Your task to perform on an android device: Empty the shopping cart on bestbuy.com. Image 0: 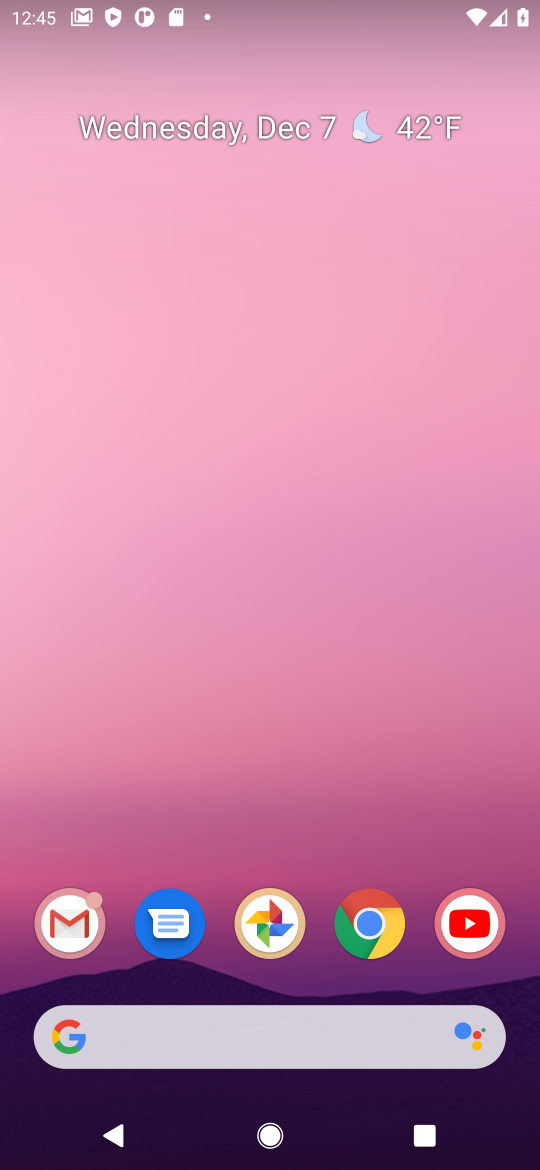
Step 0: click (369, 904)
Your task to perform on an android device: Empty the shopping cart on bestbuy.com. Image 1: 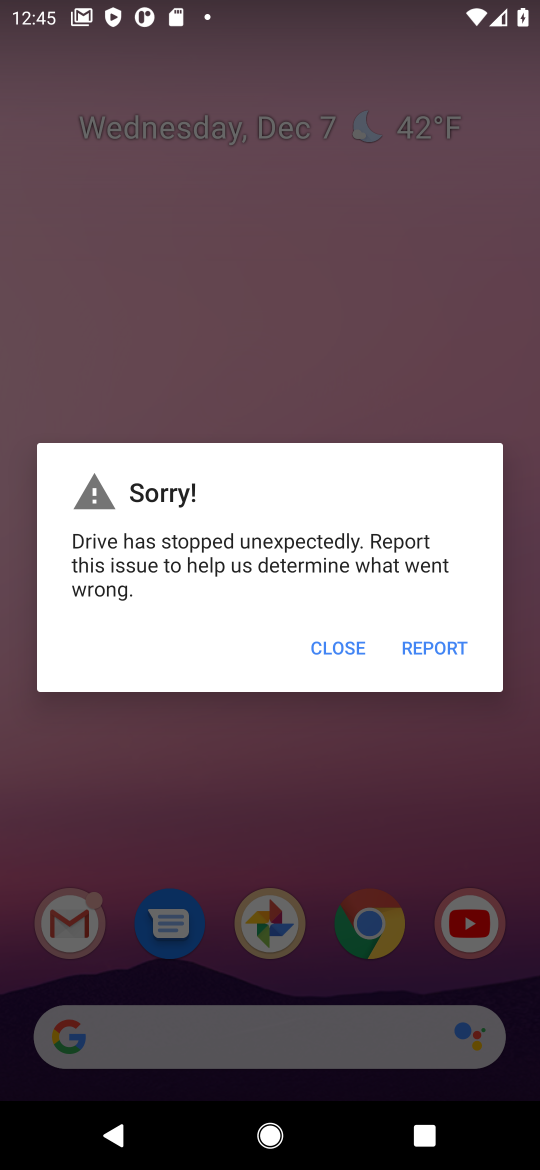
Step 1: click (345, 646)
Your task to perform on an android device: Empty the shopping cart on bestbuy.com. Image 2: 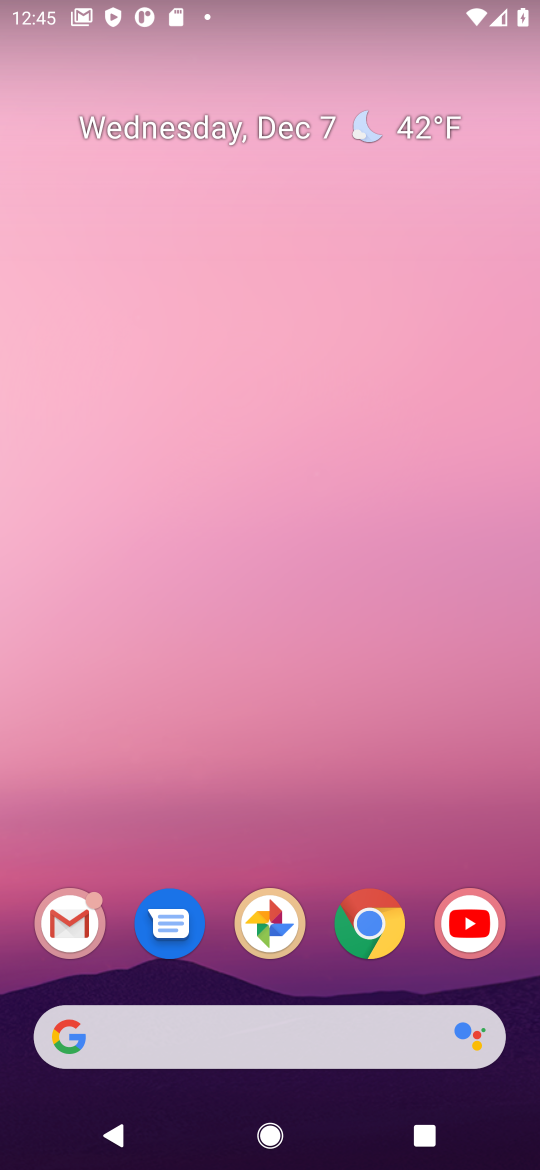
Step 2: click (367, 933)
Your task to perform on an android device: Empty the shopping cart on bestbuy.com. Image 3: 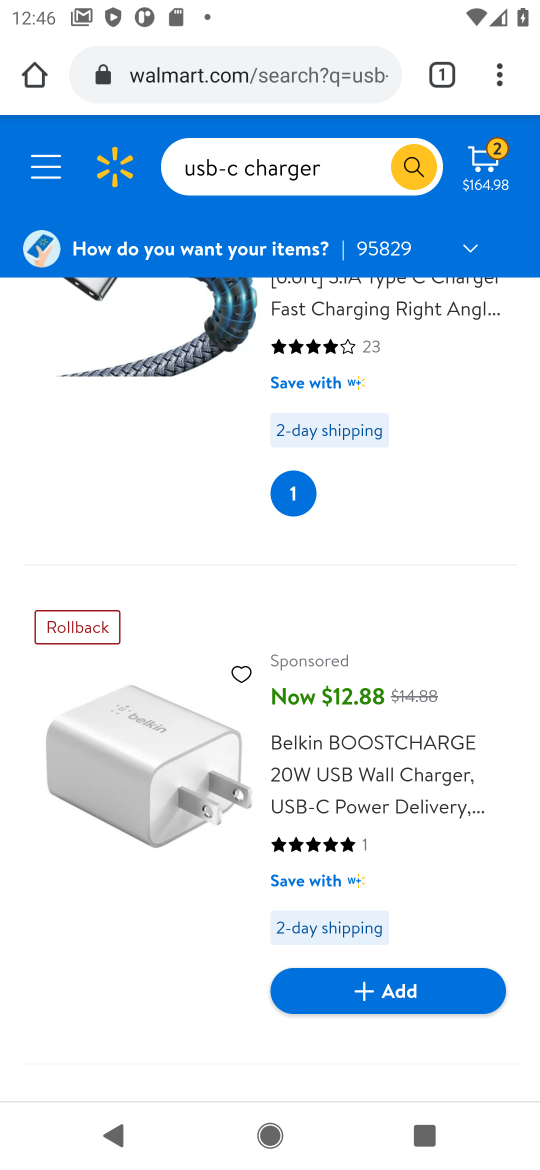
Step 3: click (475, 164)
Your task to perform on an android device: Empty the shopping cart on bestbuy.com. Image 4: 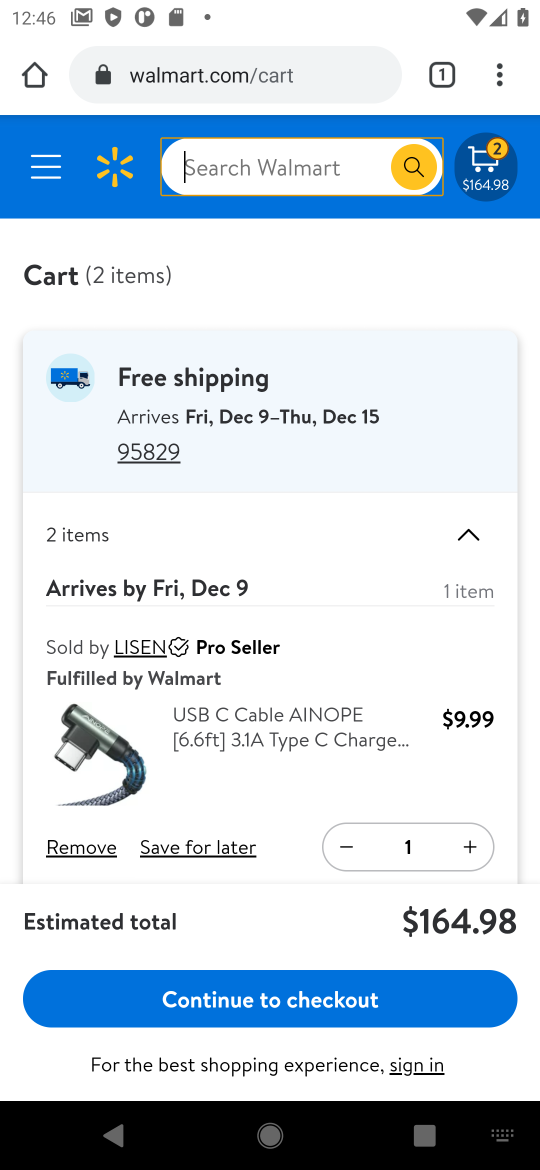
Step 4: click (72, 845)
Your task to perform on an android device: Empty the shopping cart on bestbuy.com. Image 5: 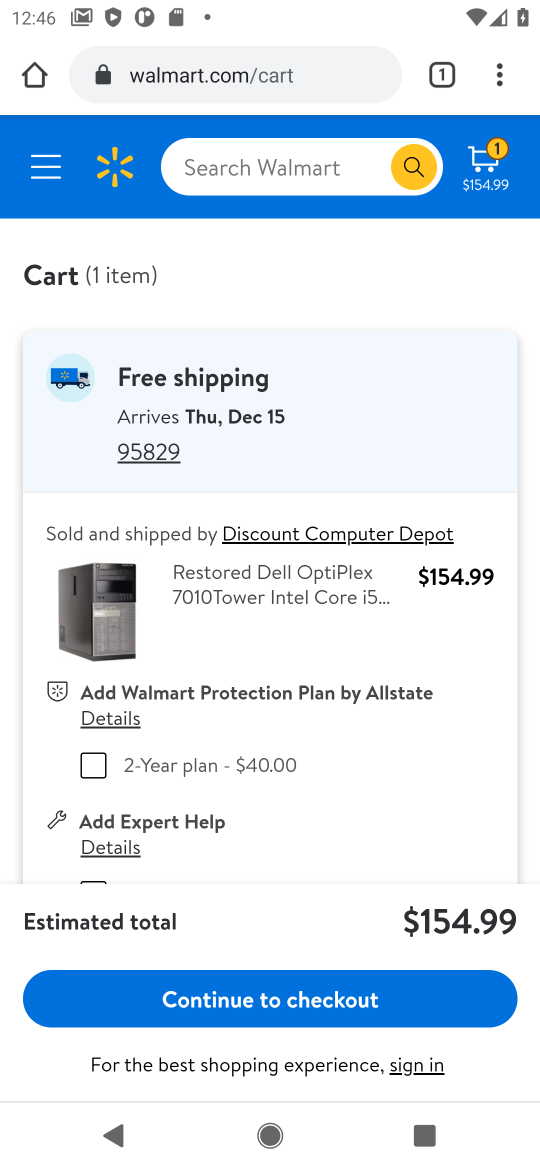
Step 5: click (478, 877)
Your task to perform on an android device: Empty the shopping cart on bestbuy.com. Image 6: 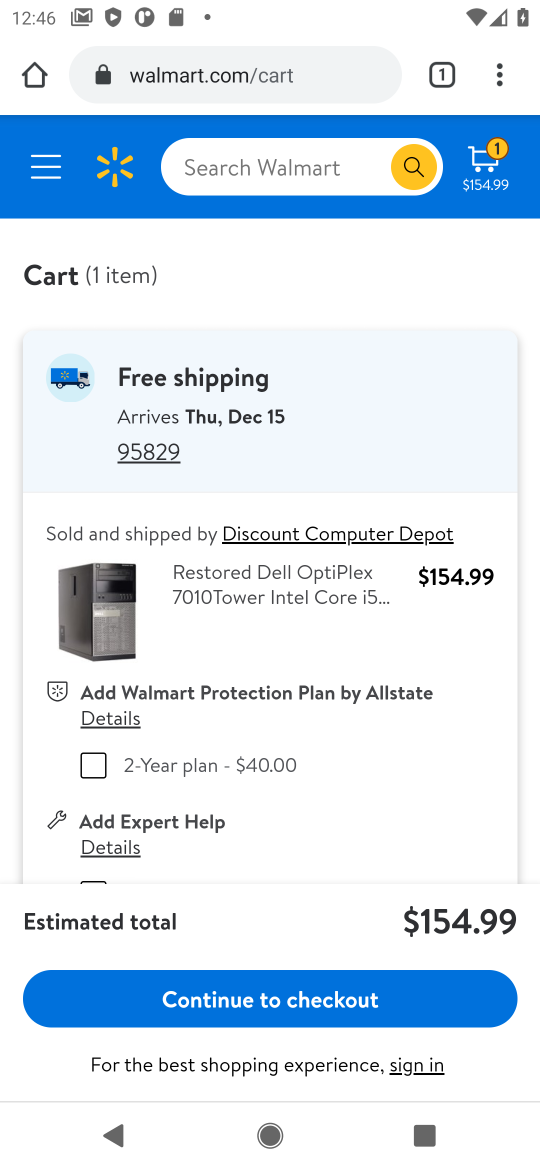
Step 6: drag from (211, 805) to (258, 456)
Your task to perform on an android device: Empty the shopping cart on bestbuy.com. Image 7: 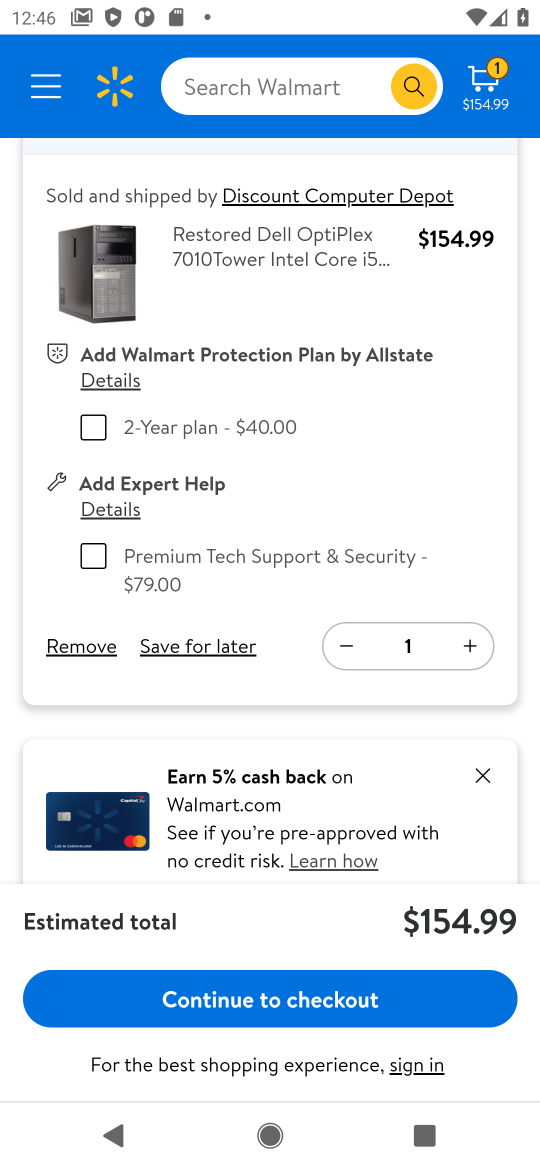
Step 7: click (78, 644)
Your task to perform on an android device: Empty the shopping cart on bestbuy.com. Image 8: 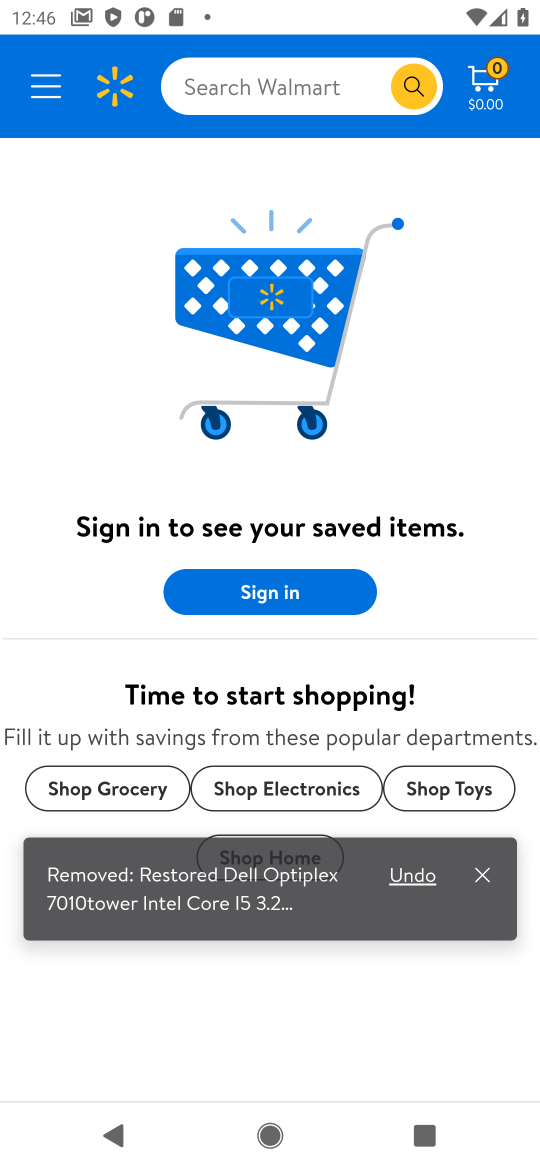
Step 8: task complete